Your task to perform on an android device: change timer sound Image 0: 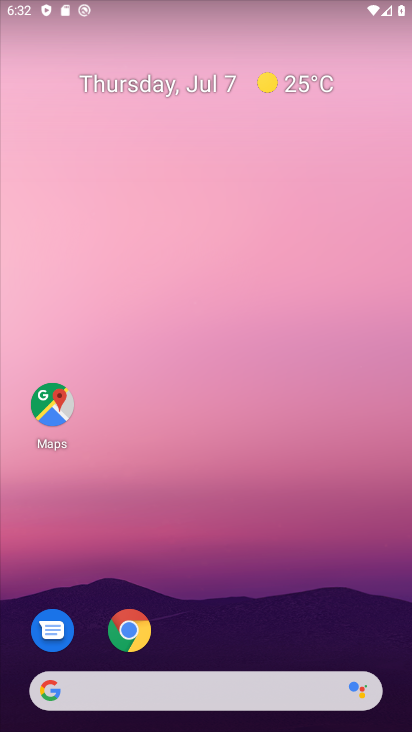
Step 0: drag from (254, 556) to (179, 40)
Your task to perform on an android device: change timer sound Image 1: 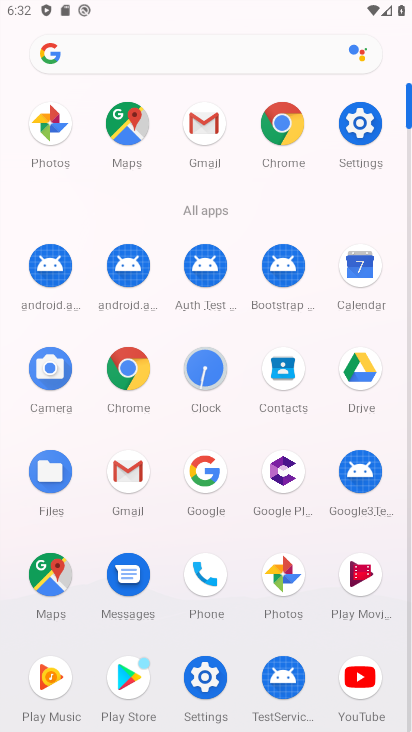
Step 1: click (206, 364)
Your task to perform on an android device: change timer sound Image 2: 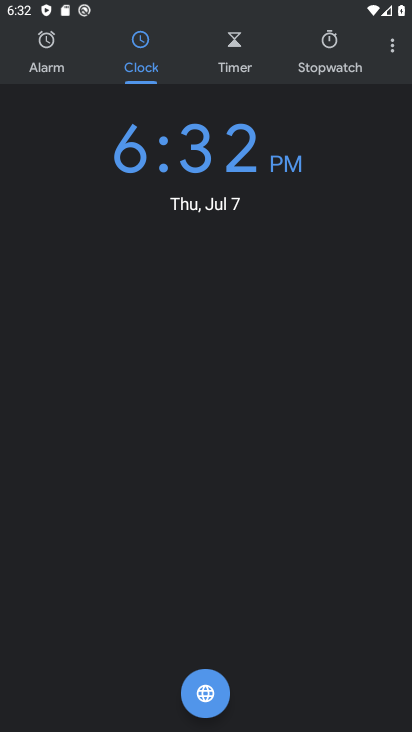
Step 2: click (395, 46)
Your task to perform on an android device: change timer sound Image 3: 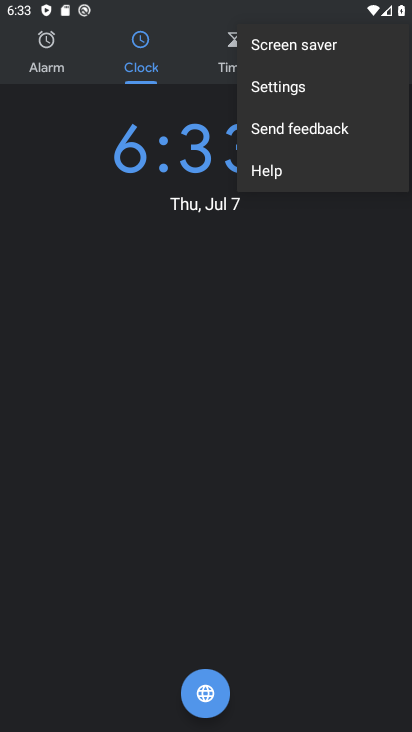
Step 3: click (274, 84)
Your task to perform on an android device: change timer sound Image 4: 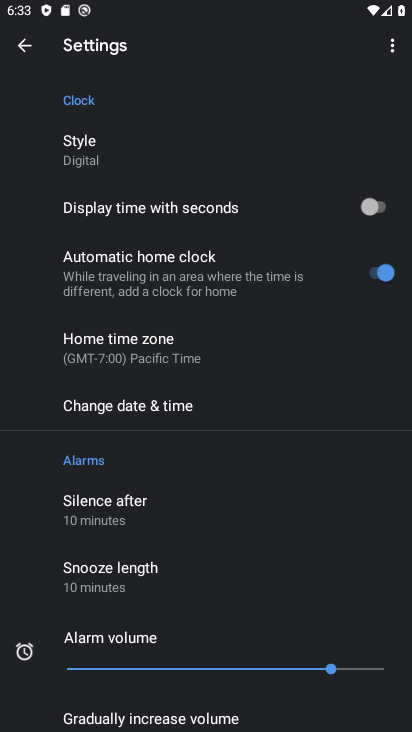
Step 4: drag from (208, 558) to (156, 269)
Your task to perform on an android device: change timer sound Image 5: 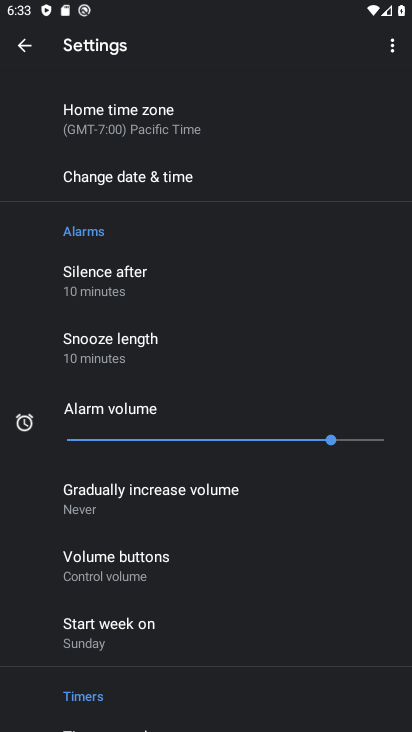
Step 5: drag from (213, 523) to (206, 305)
Your task to perform on an android device: change timer sound Image 6: 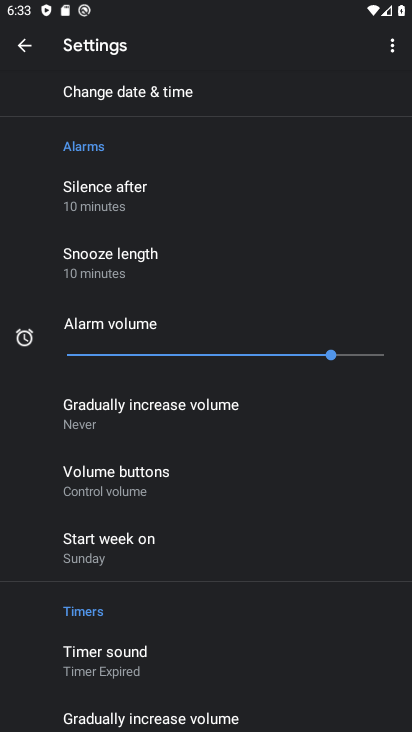
Step 6: click (107, 654)
Your task to perform on an android device: change timer sound Image 7: 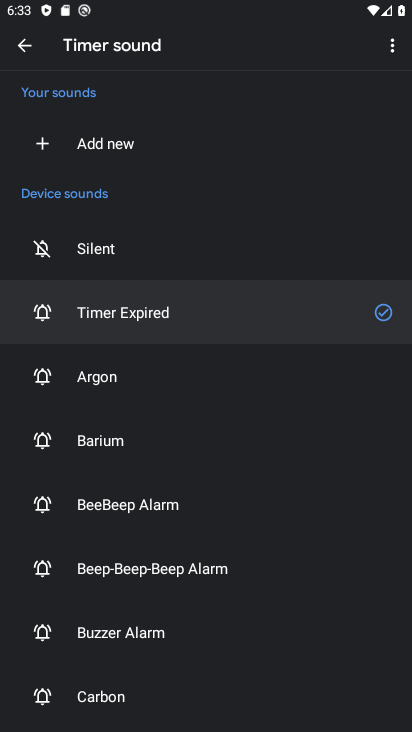
Step 7: click (102, 381)
Your task to perform on an android device: change timer sound Image 8: 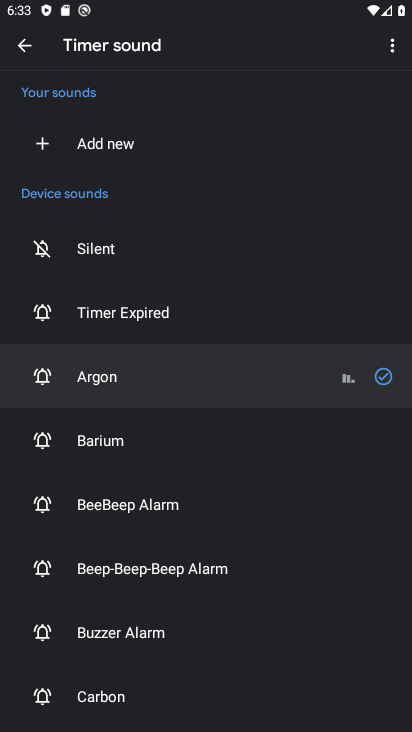
Step 8: task complete